Your task to perform on an android device: Open wifi settings Image 0: 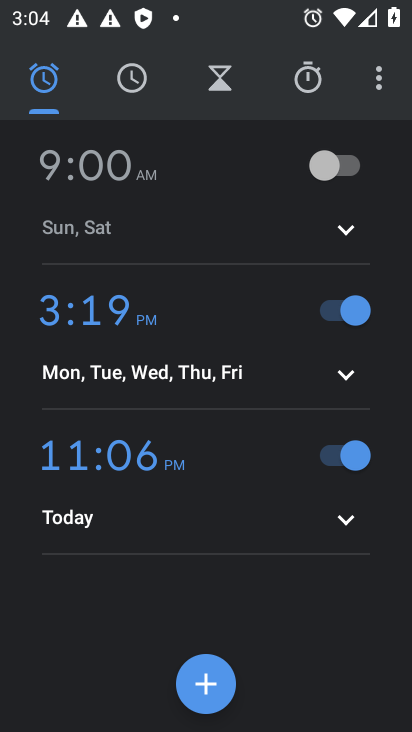
Step 0: press home button
Your task to perform on an android device: Open wifi settings Image 1: 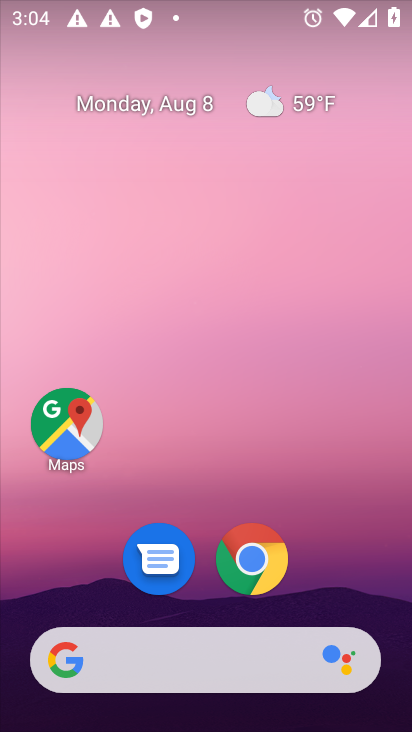
Step 1: drag from (173, 647) to (184, 121)
Your task to perform on an android device: Open wifi settings Image 2: 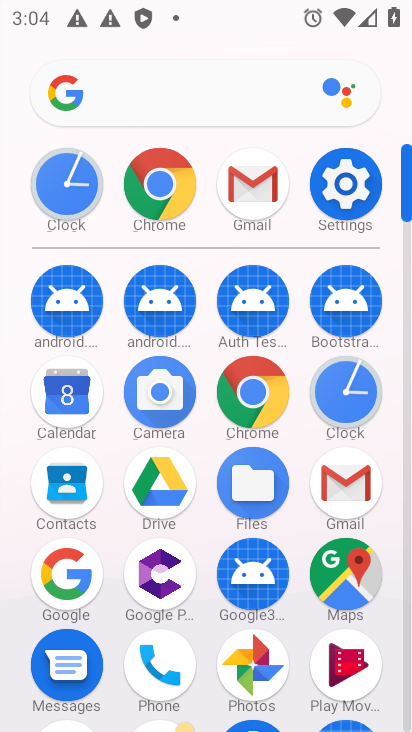
Step 2: click (345, 184)
Your task to perform on an android device: Open wifi settings Image 3: 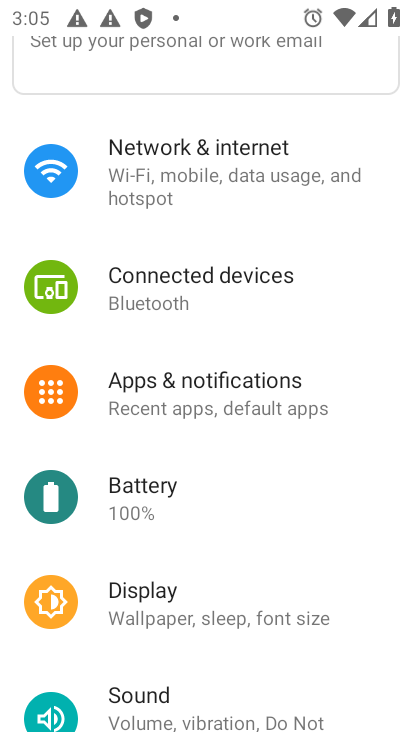
Step 3: click (252, 160)
Your task to perform on an android device: Open wifi settings Image 4: 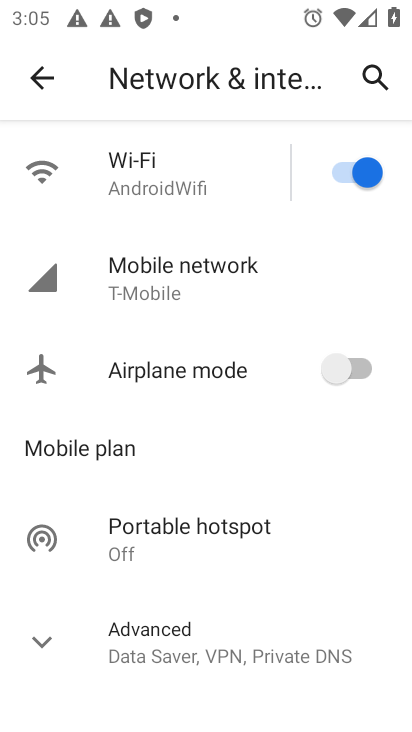
Step 4: click (142, 188)
Your task to perform on an android device: Open wifi settings Image 5: 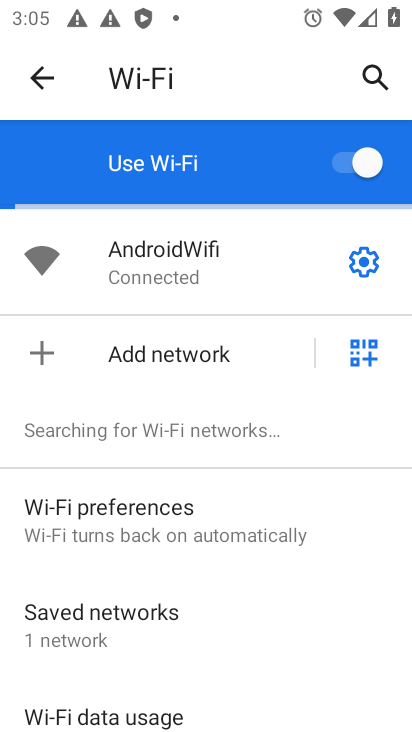
Step 5: click (352, 252)
Your task to perform on an android device: Open wifi settings Image 6: 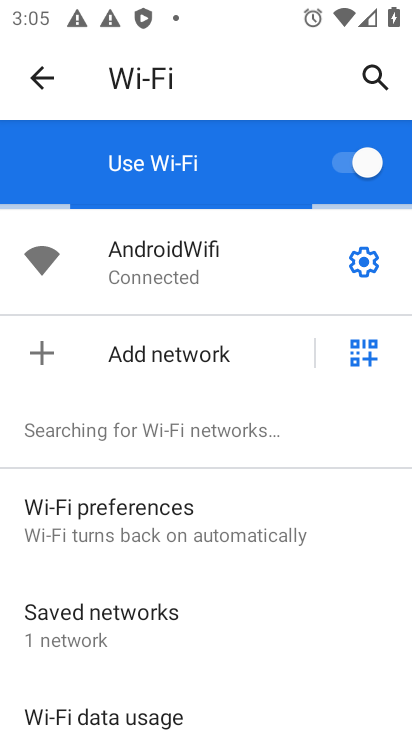
Step 6: click (366, 267)
Your task to perform on an android device: Open wifi settings Image 7: 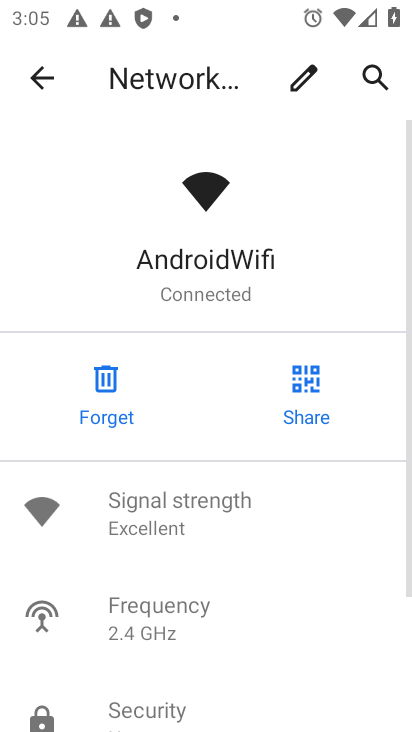
Step 7: task complete